Your task to perform on an android device: add a contact in the contacts app Image 0: 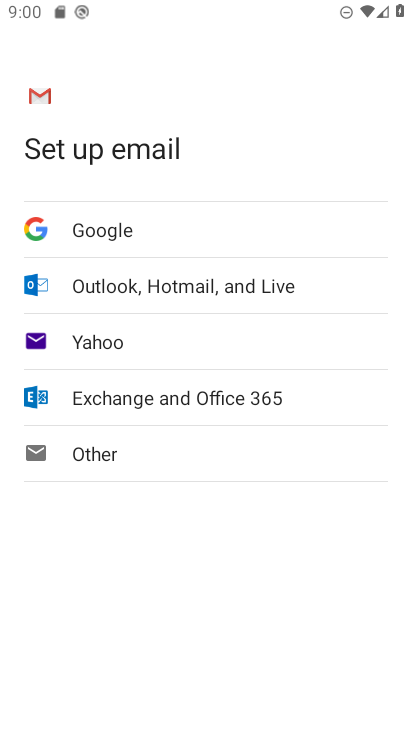
Step 0: press home button
Your task to perform on an android device: add a contact in the contacts app Image 1: 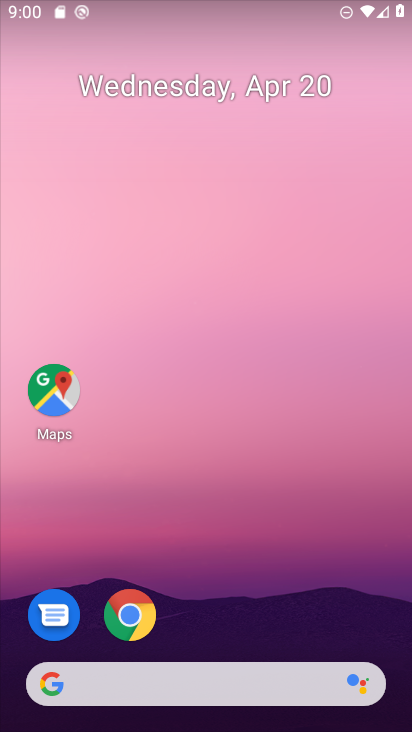
Step 1: drag from (231, 620) to (274, 78)
Your task to perform on an android device: add a contact in the contacts app Image 2: 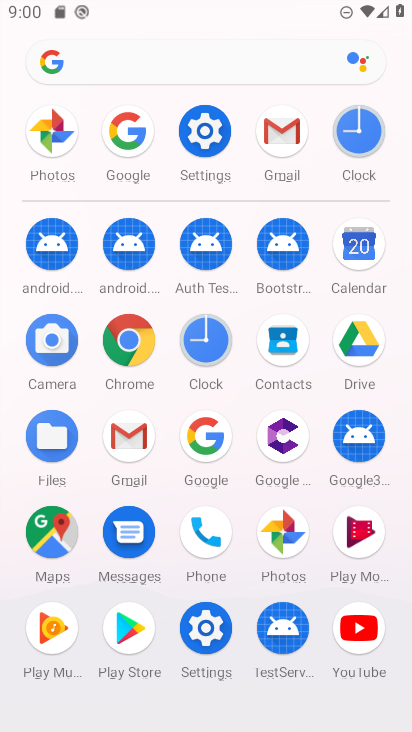
Step 2: click (286, 339)
Your task to perform on an android device: add a contact in the contacts app Image 3: 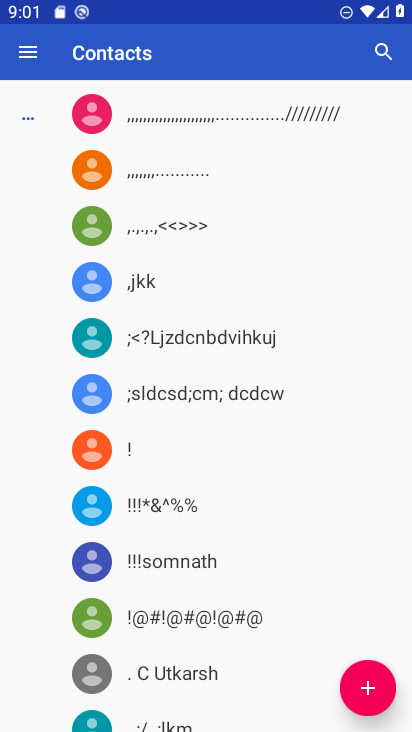
Step 3: click (368, 689)
Your task to perform on an android device: add a contact in the contacts app Image 4: 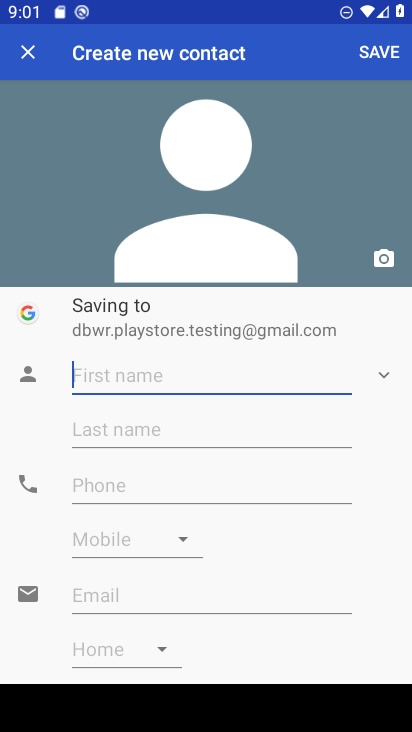
Step 4: click (194, 377)
Your task to perform on an android device: add a contact in the contacts app Image 5: 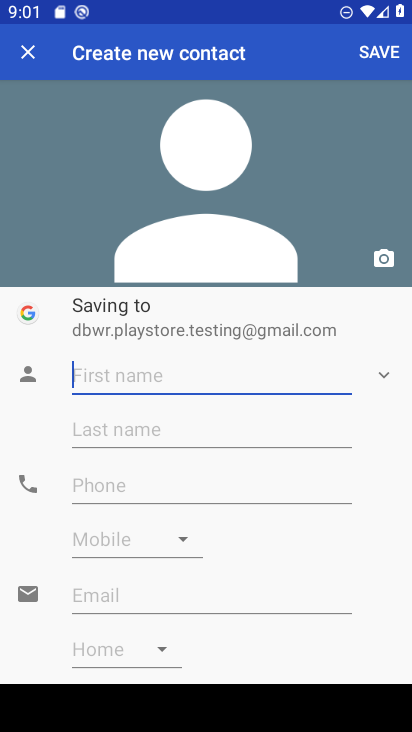
Step 5: type "Sanath"
Your task to perform on an android device: add a contact in the contacts app Image 6: 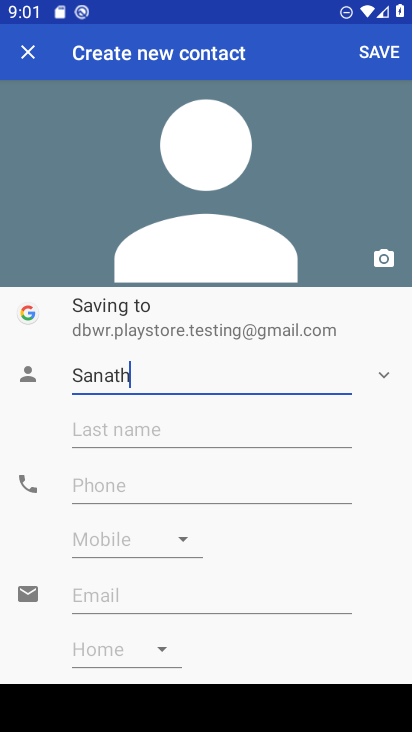
Step 6: click (201, 435)
Your task to perform on an android device: add a contact in the contacts app Image 7: 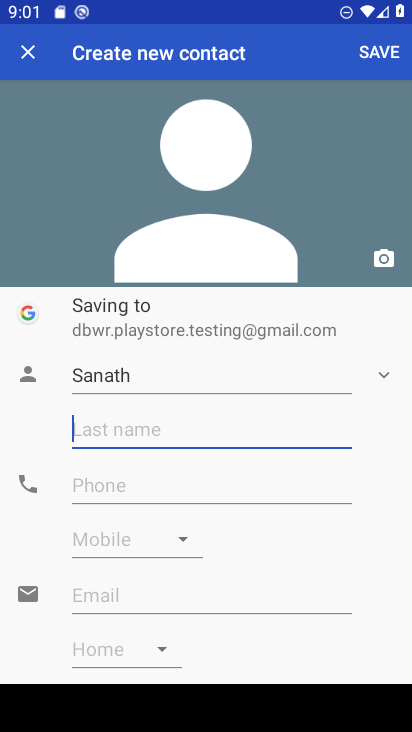
Step 7: type "Jayasurya"
Your task to perform on an android device: add a contact in the contacts app Image 8: 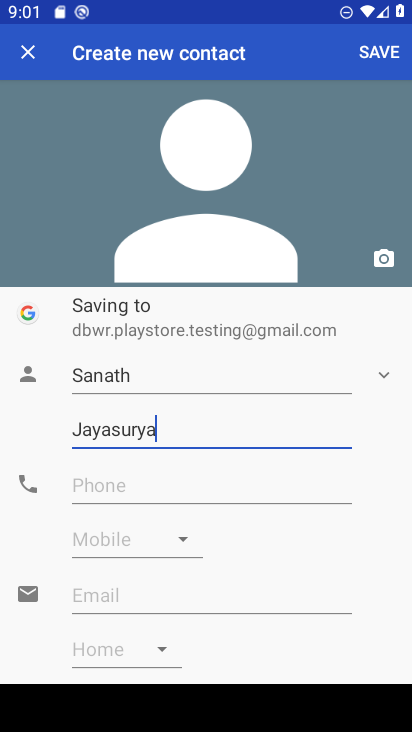
Step 8: click (287, 486)
Your task to perform on an android device: add a contact in the contacts app Image 9: 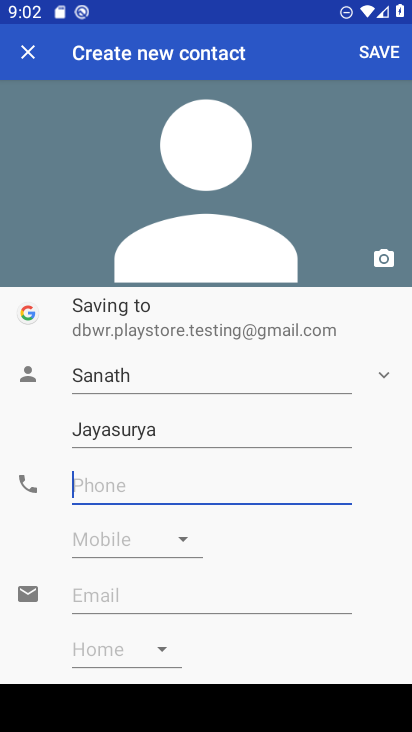
Step 9: type "07894561234"
Your task to perform on an android device: add a contact in the contacts app Image 10: 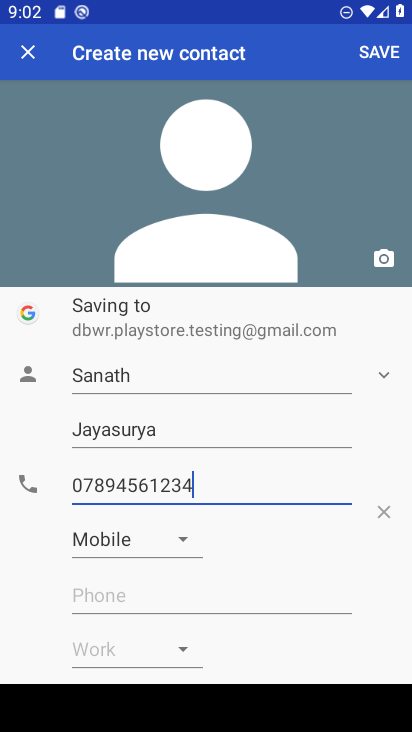
Step 10: click (394, 55)
Your task to perform on an android device: add a contact in the contacts app Image 11: 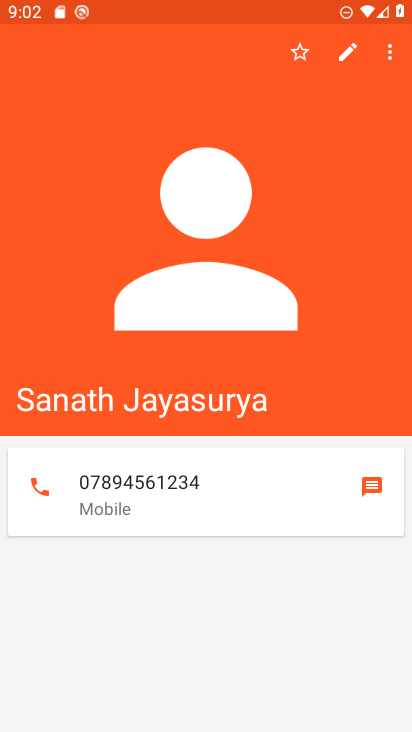
Step 11: task complete